Your task to perform on an android device: check the backup settings in the google photos Image 0: 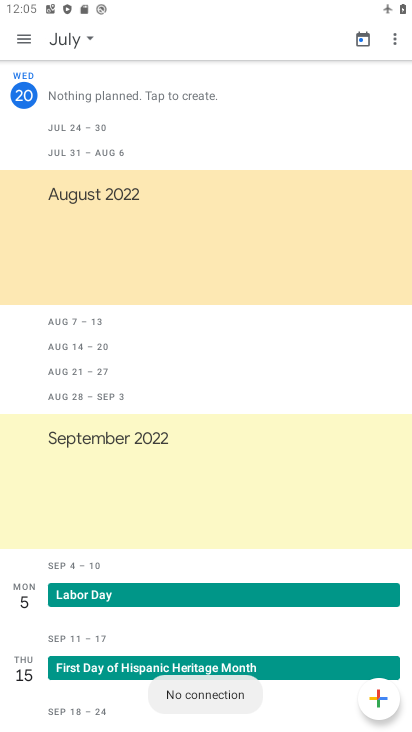
Step 0: press home button
Your task to perform on an android device: check the backup settings in the google photos Image 1: 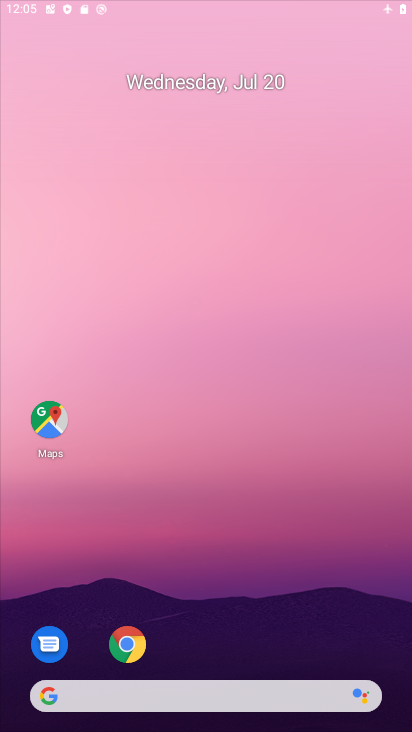
Step 1: drag from (199, 655) to (244, 338)
Your task to perform on an android device: check the backup settings in the google photos Image 2: 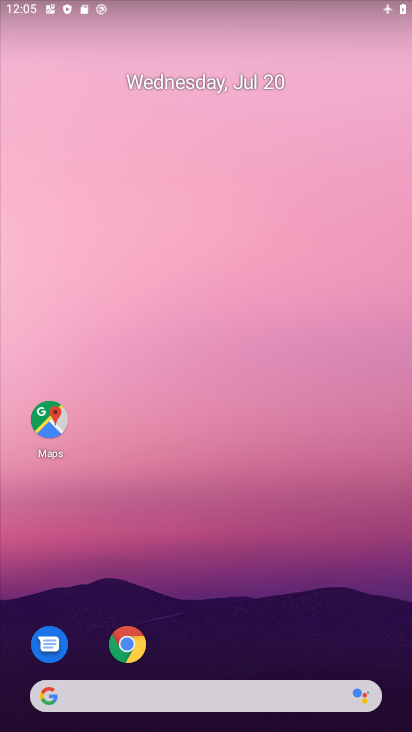
Step 2: drag from (237, 631) to (195, 2)
Your task to perform on an android device: check the backup settings in the google photos Image 3: 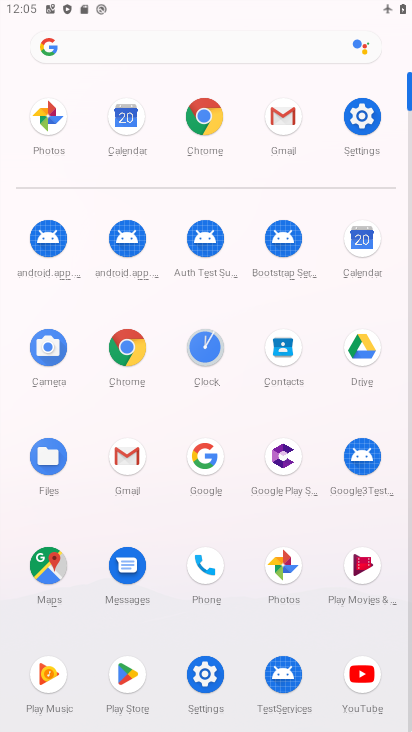
Step 3: click (289, 555)
Your task to perform on an android device: check the backup settings in the google photos Image 4: 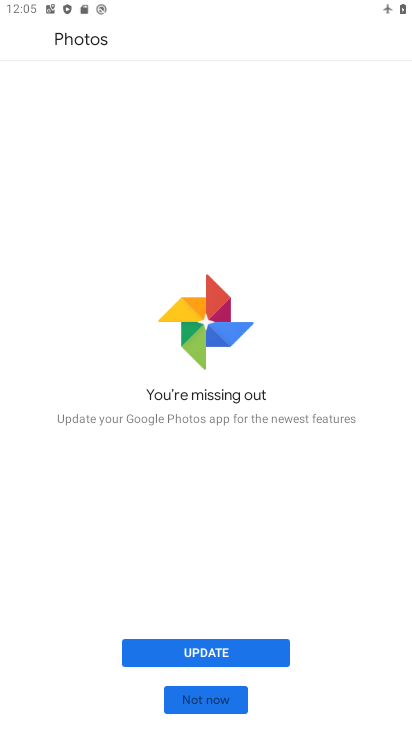
Step 4: click (210, 705)
Your task to perform on an android device: check the backup settings in the google photos Image 5: 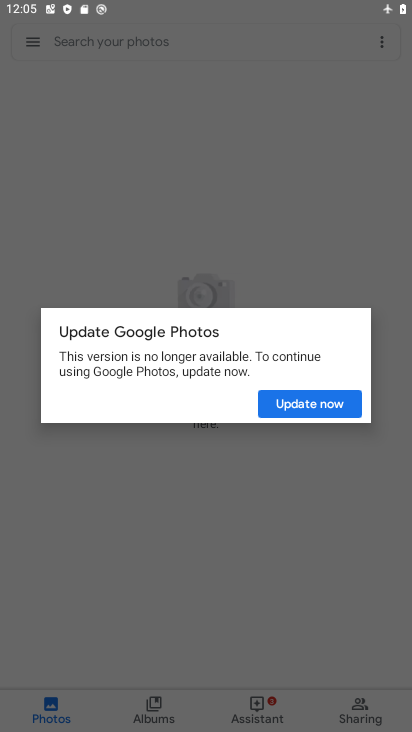
Step 5: click (326, 408)
Your task to perform on an android device: check the backup settings in the google photos Image 6: 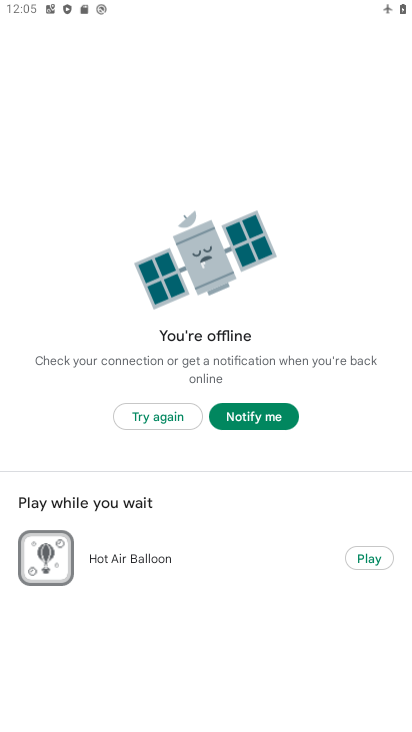
Step 6: drag from (306, 3) to (383, 548)
Your task to perform on an android device: check the backup settings in the google photos Image 7: 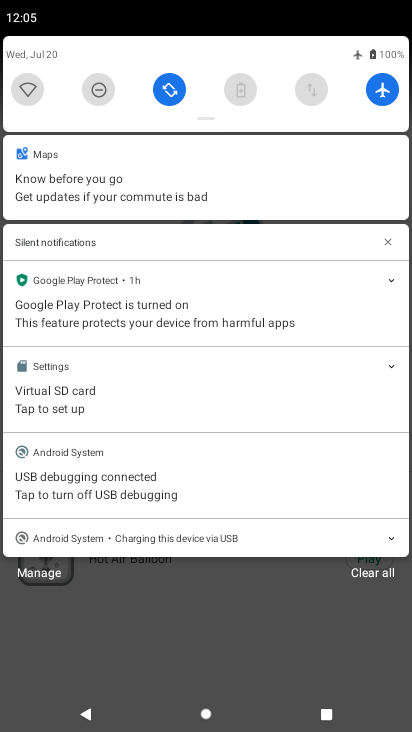
Step 7: click (381, 113)
Your task to perform on an android device: check the backup settings in the google photos Image 8: 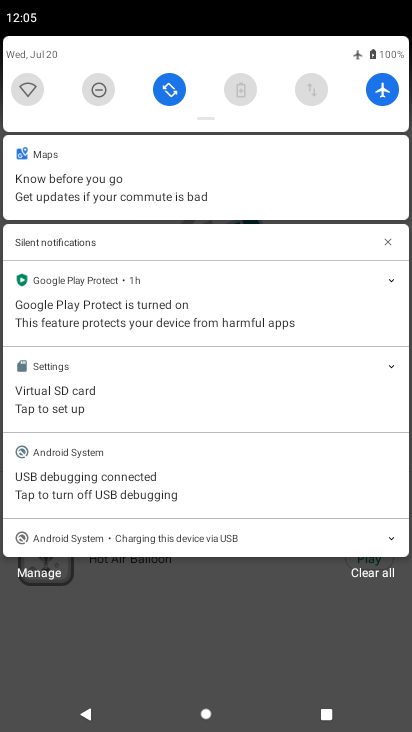
Step 8: click (388, 97)
Your task to perform on an android device: check the backup settings in the google photos Image 9: 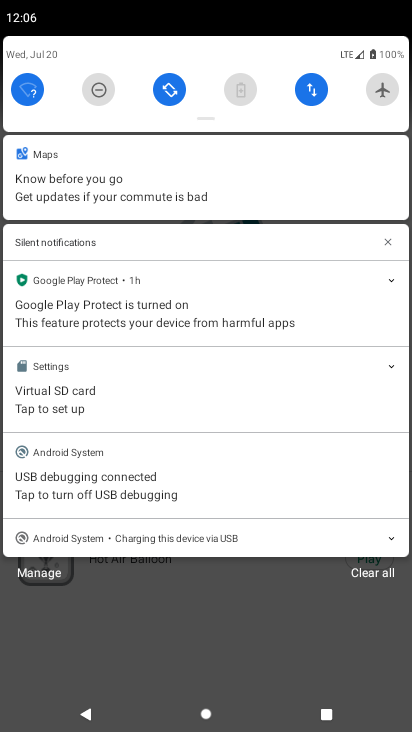
Step 9: drag from (167, 580) to (197, 118)
Your task to perform on an android device: check the backup settings in the google photos Image 10: 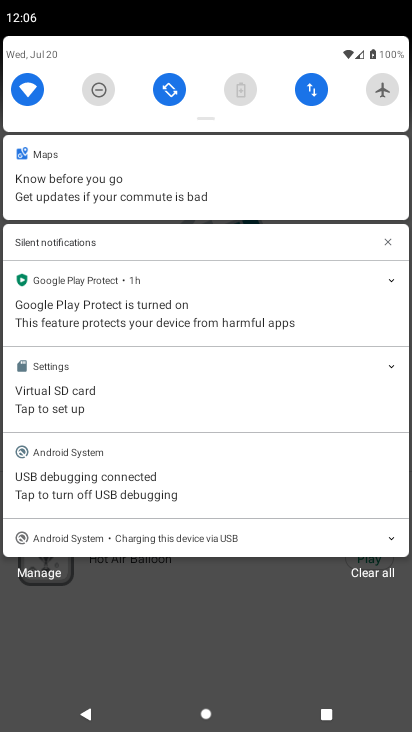
Step 10: drag from (131, 573) to (265, 44)
Your task to perform on an android device: check the backup settings in the google photos Image 11: 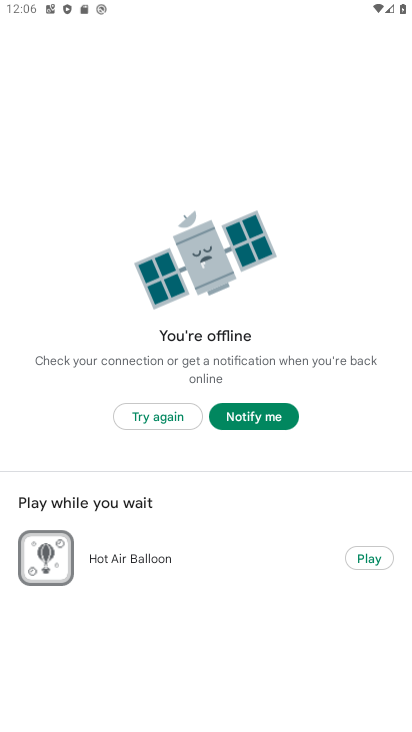
Step 11: click (172, 421)
Your task to perform on an android device: check the backup settings in the google photos Image 12: 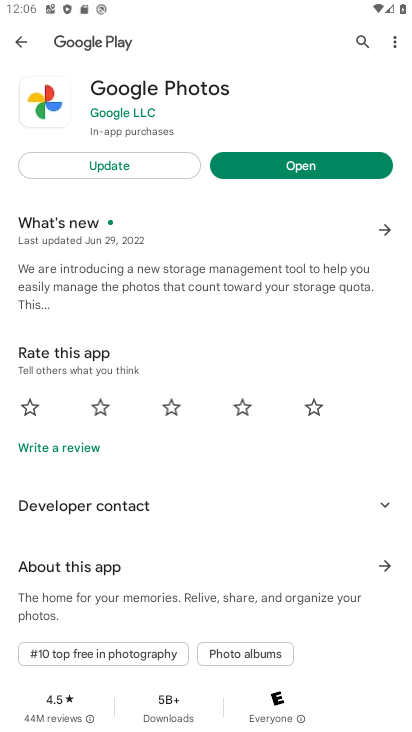
Step 12: click (114, 179)
Your task to perform on an android device: check the backup settings in the google photos Image 13: 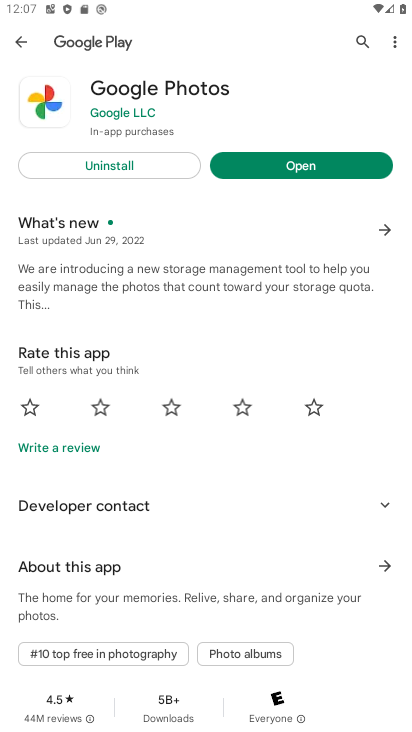
Step 13: click (323, 177)
Your task to perform on an android device: check the backup settings in the google photos Image 14: 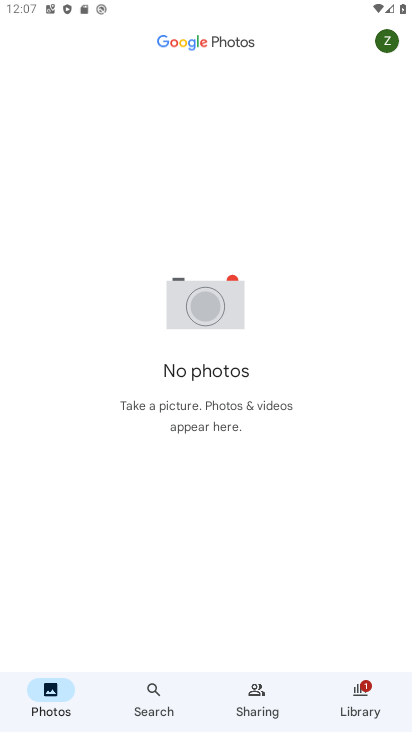
Step 14: click (373, 43)
Your task to perform on an android device: check the backup settings in the google photos Image 15: 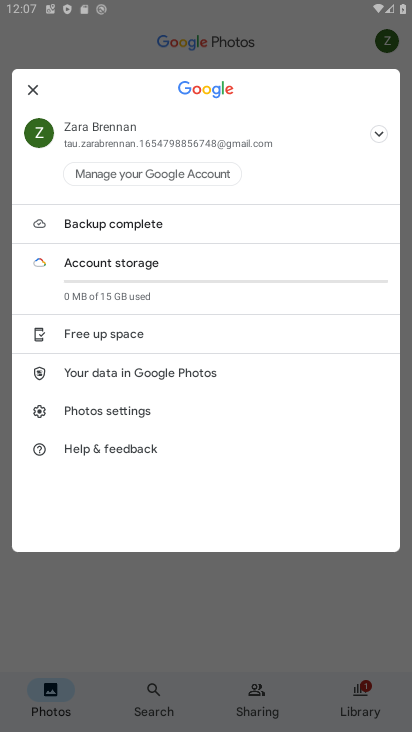
Step 15: click (386, 38)
Your task to perform on an android device: check the backup settings in the google photos Image 16: 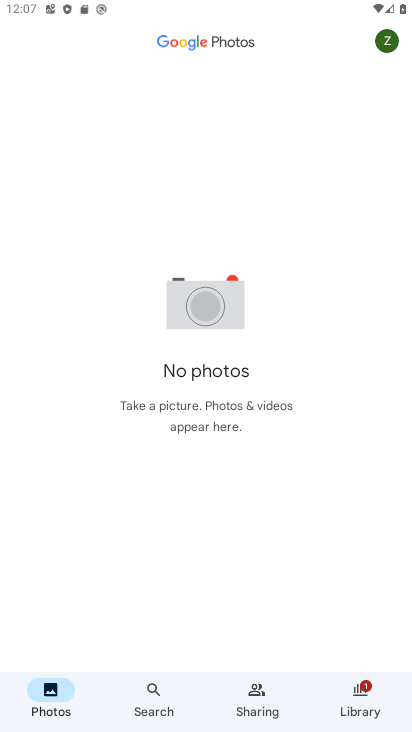
Step 16: click (397, 37)
Your task to perform on an android device: check the backup settings in the google photos Image 17: 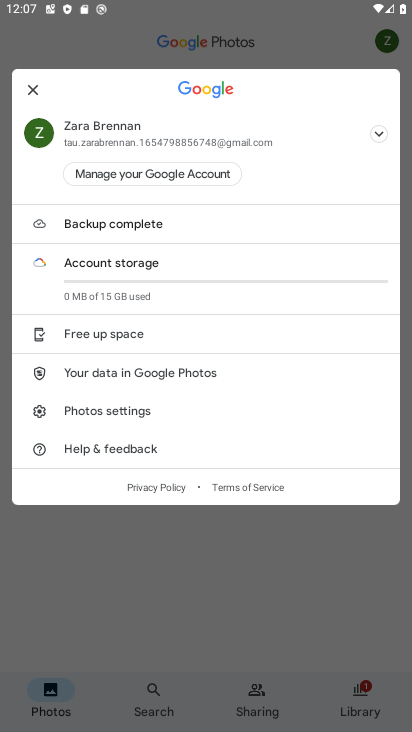
Step 17: click (77, 418)
Your task to perform on an android device: check the backup settings in the google photos Image 18: 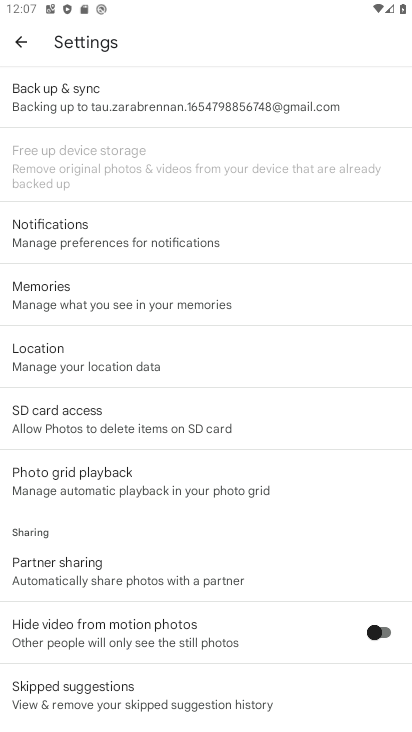
Step 18: click (107, 93)
Your task to perform on an android device: check the backup settings in the google photos Image 19: 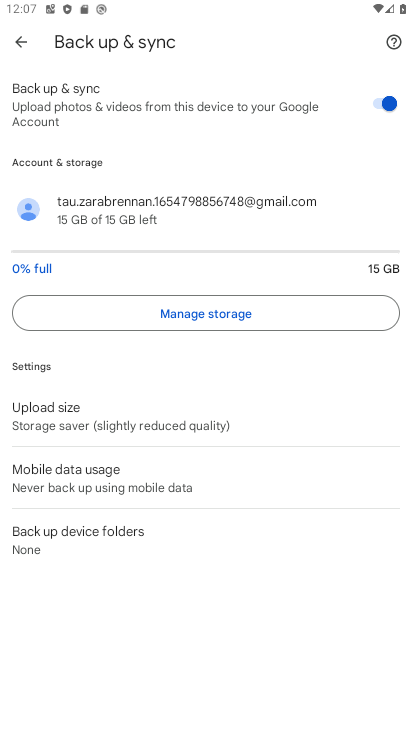
Step 19: task complete